Your task to perform on an android device: What is the recent news? Image 0: 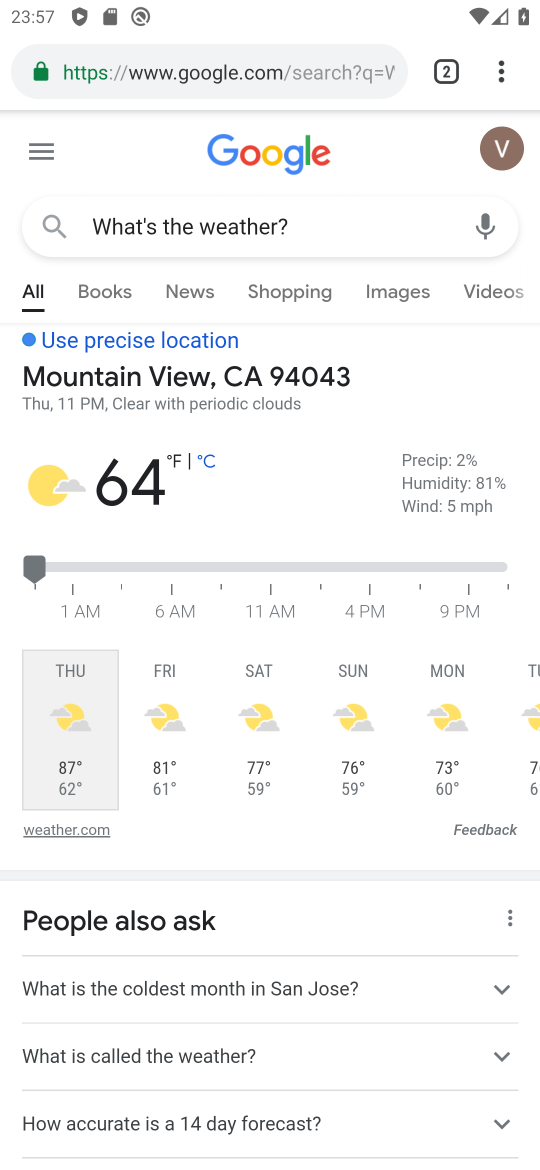
Step 0: click (272, 67)
Your task to perform on an android device: What is the recent news? Image 1: 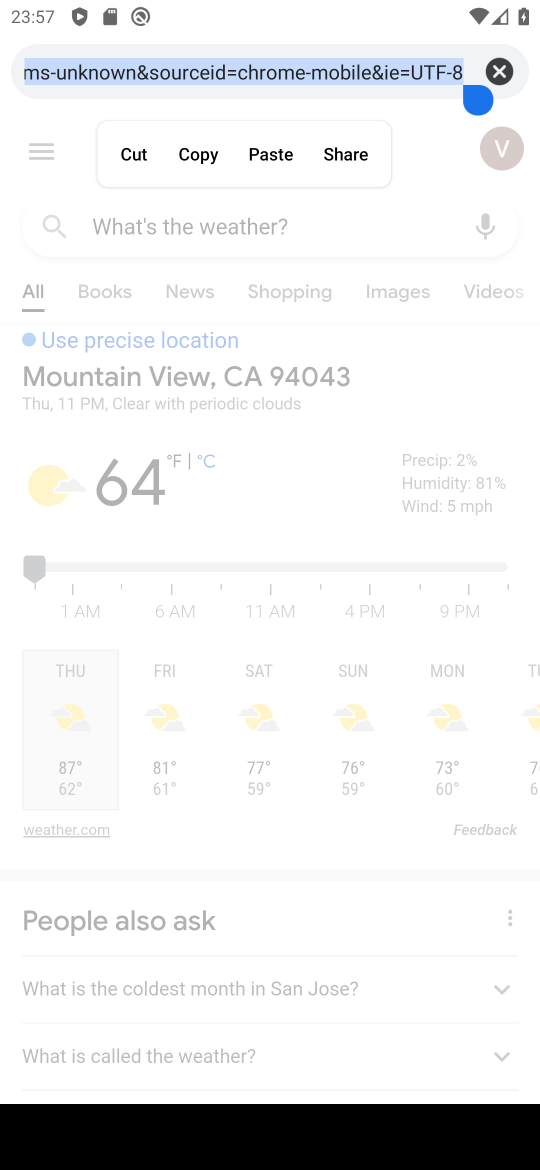
Step 1: type "What is the recent news?"
Your task to perform on an android device: What is the recent news? Image 2: 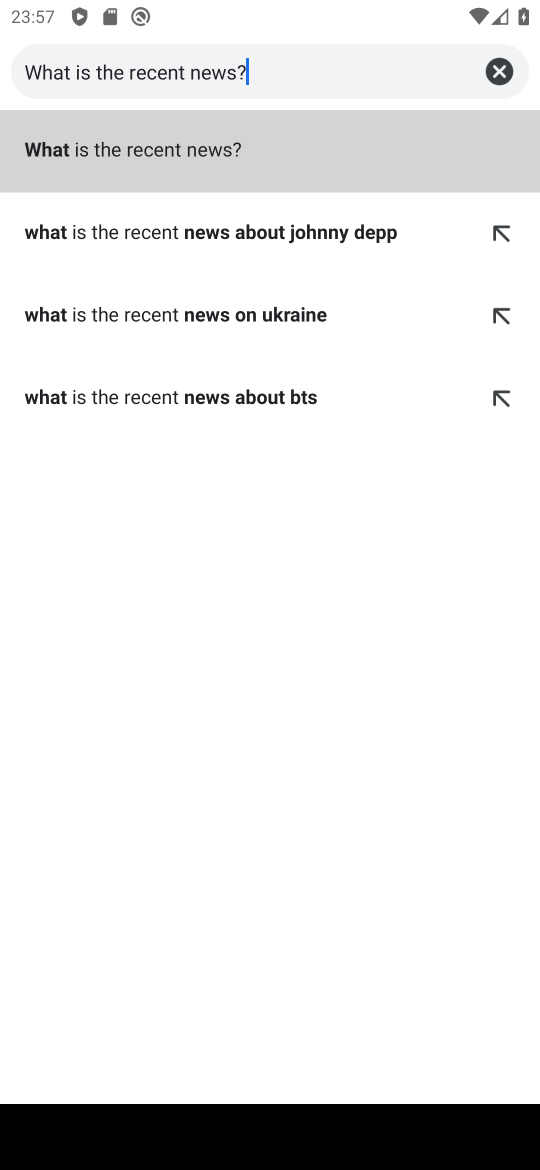
Step 2: click (195, 151)
Your task to perform on an android device: What is the recent news? Image 3: 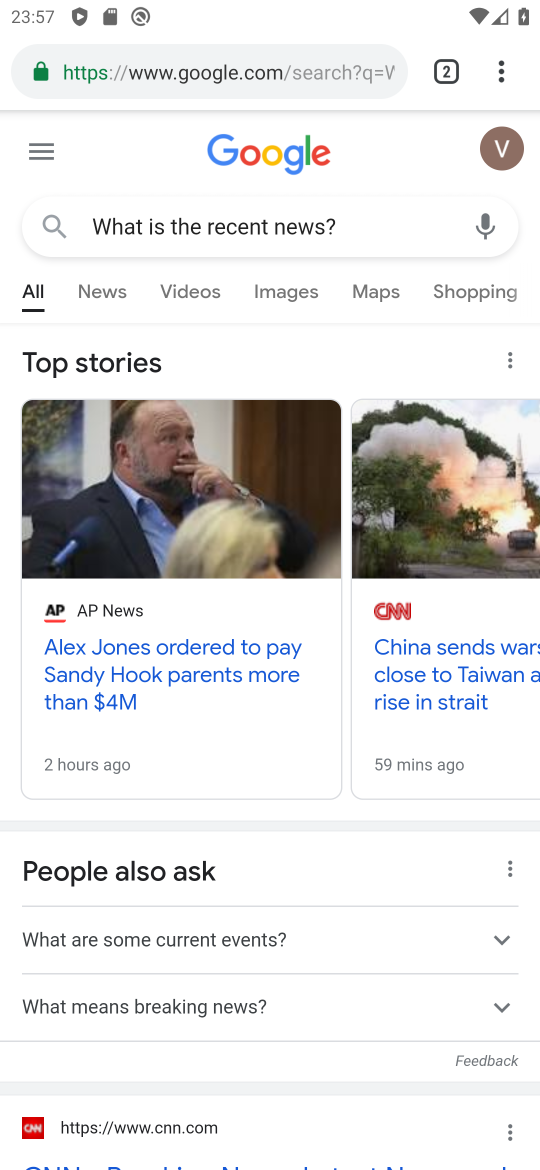
Step 3: task complete